Your task to perform on an android device: Open Google Chrome and click the shortcut for Amazon.com Image 0: 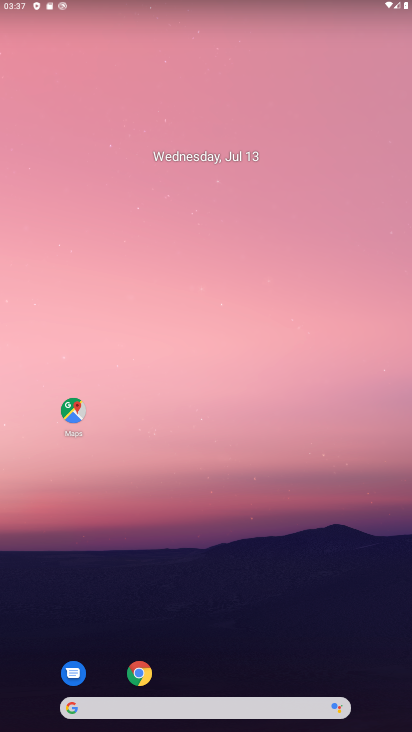
Step 0: drag from (228, 636) to (217, 149)
Your task to perform on an android device: Open Google Chrome and click the shortcut for Amazon.com Image 1: 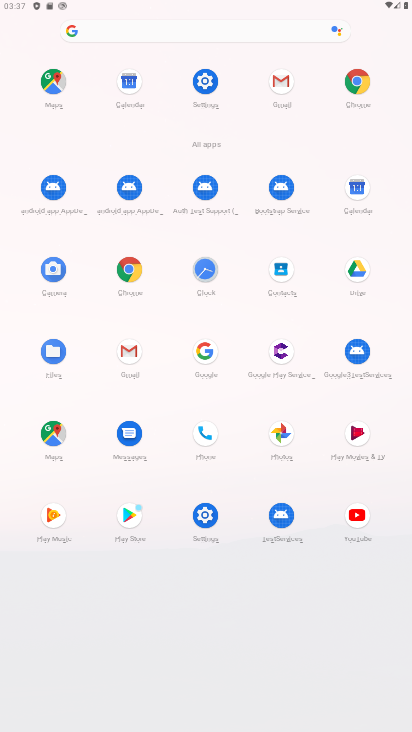
Step 1: click (125, 281)
Your task to perform on an android device: Open Google Chrome and click the shortcut for Amazon.com Image 2: 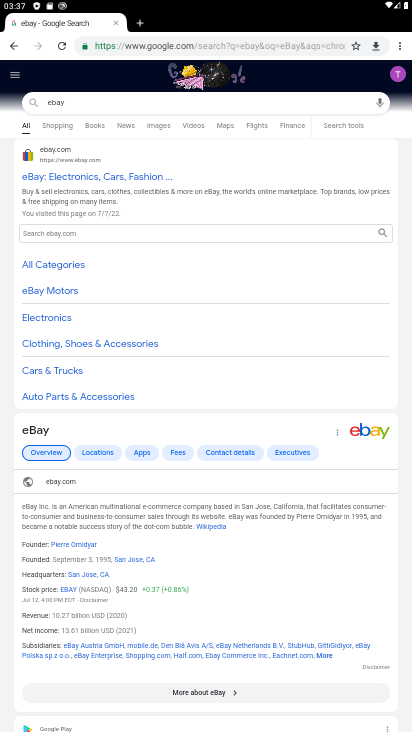
Step 2: drag from (402, 39) to (313, 82)
Your task to perform on an android device: Open Google Chrome and click the shortcut for Amazon.com Image 3: 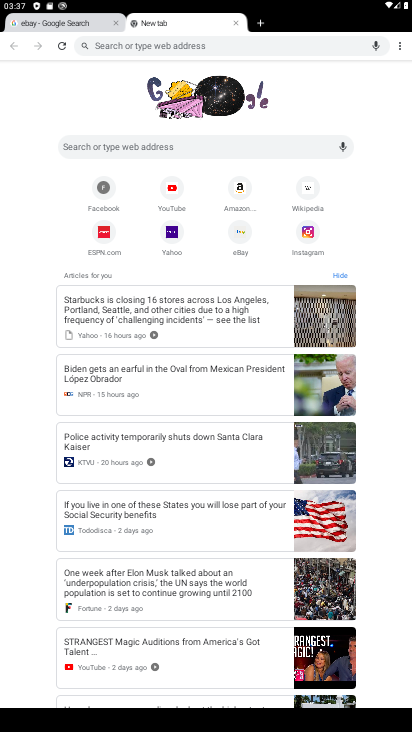
Step 3: click (240, 179)
Your task to perform on an android device: Open Google Chrome and click the shortcut for Amazon.com Image 4: 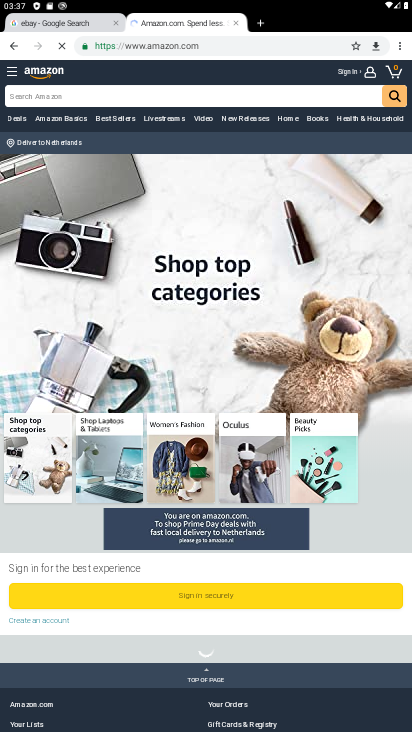
Step 4: task complete